Your task to perform on an android device: Show me the alarms in the clock app Image 0: 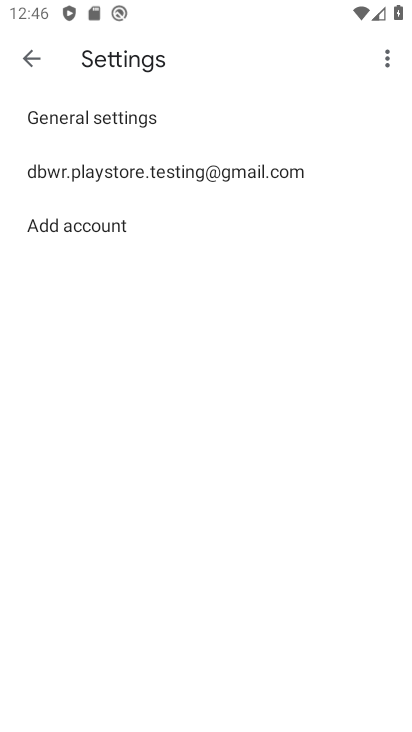
Step 0: press home button
Your task to perform on an android device: Show me the alarms in the clock app Image 1: 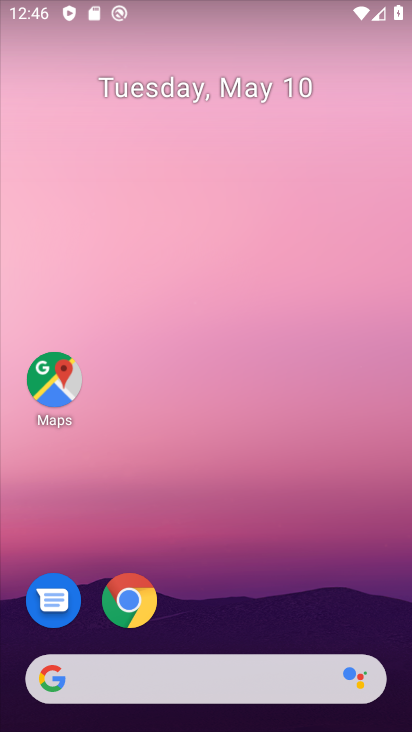
Step 1: drag from (192, 669) to (312, 0)
Your task to perform on an android device: Show me the alarms in the clock app Image 2: 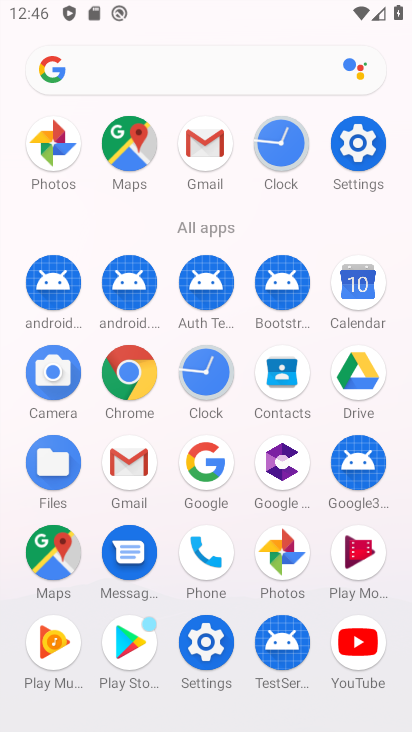
Step 2: drag from (165, 604) to (272, 420)
Your task to perform on an android device: Show me the alarms in the clock app Image 3: 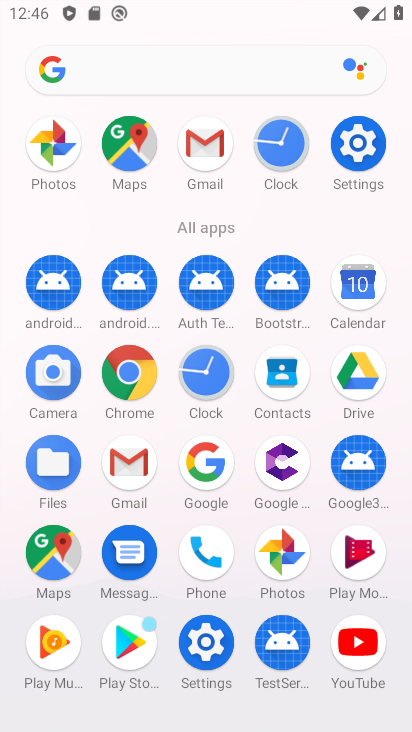
Step 3: click (204, 367)
Your task to perform on an android device: Show me the alarms in the clock app Image 4: 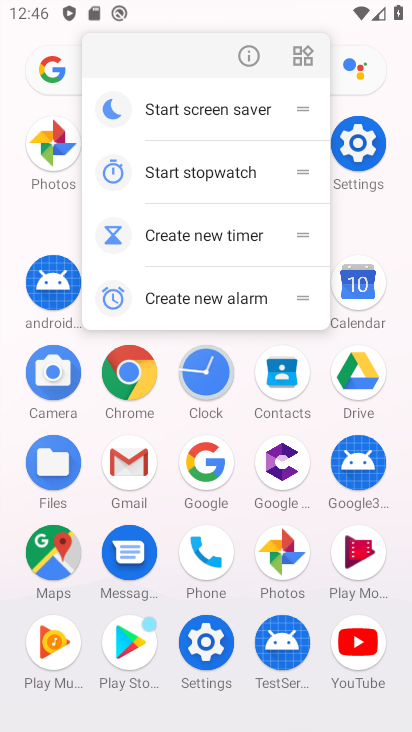
Step 4: click (200, 379)
Your task to perform on an android device: Show me the alarms in the clock app Image 5: 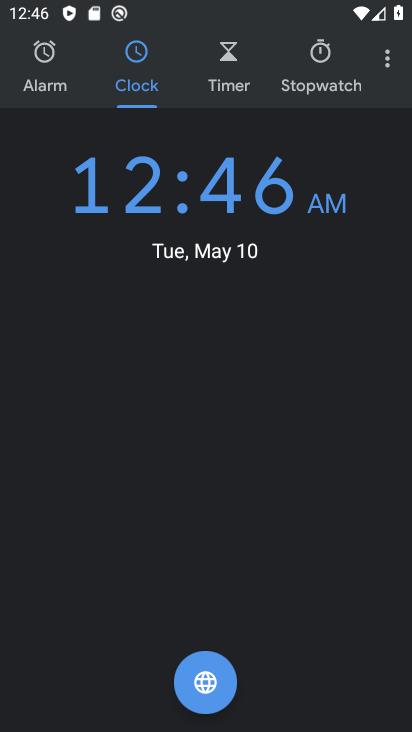
Step 5: click (45, 63)
Your task to perform on an android device: Show me the alarms in the clock app Image 6: 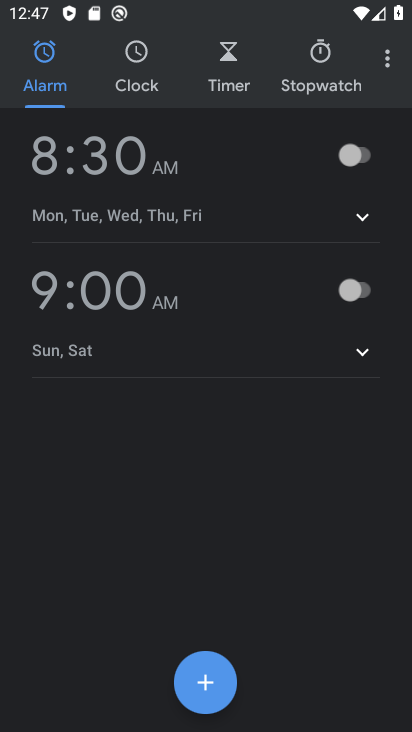
Step 6: task complete